Your task to perform on an android device: Go to internet settings Image 0: 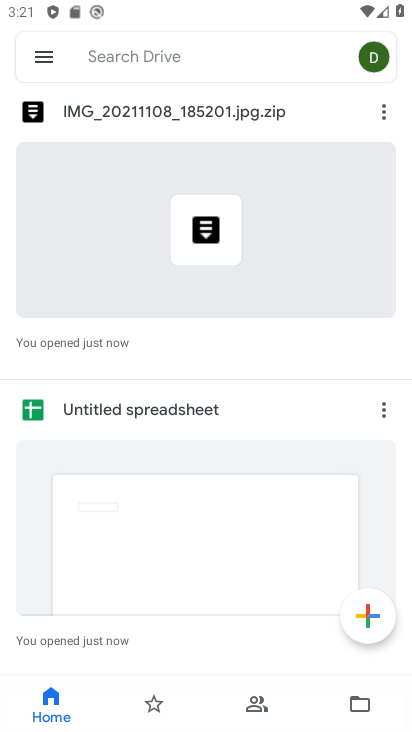
Step 0: press home button
Your task to perform on an android device: Go to internet settings Image 1: 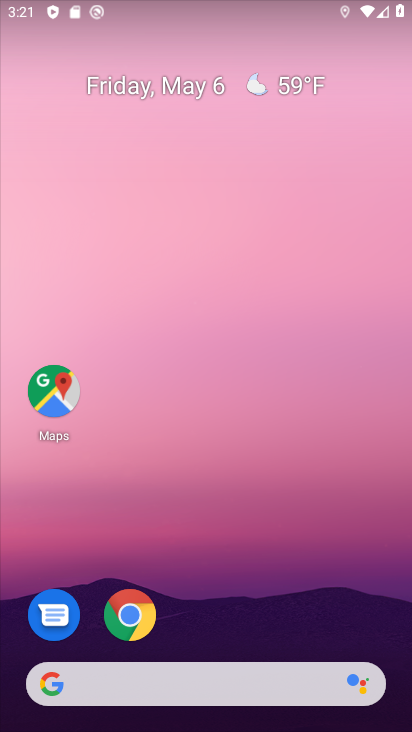
Step 1: drag from (288, 638) to (312, 10)
Your task to perform on an android device: Go to internet settings Image 2: 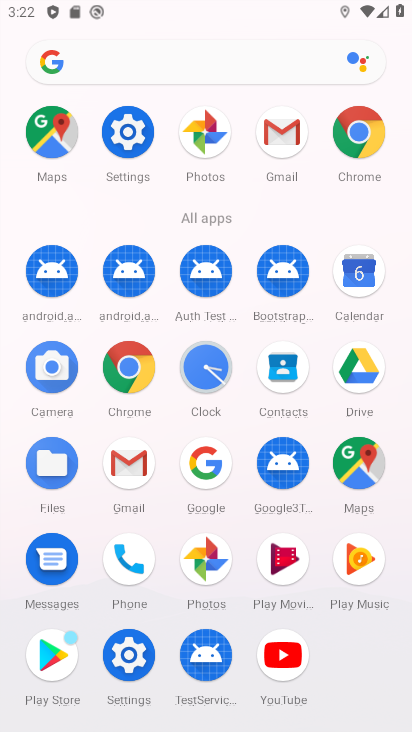
Step 2: click (130, 136)
Your task to perform on an android device: Go to internet settings Image 3: 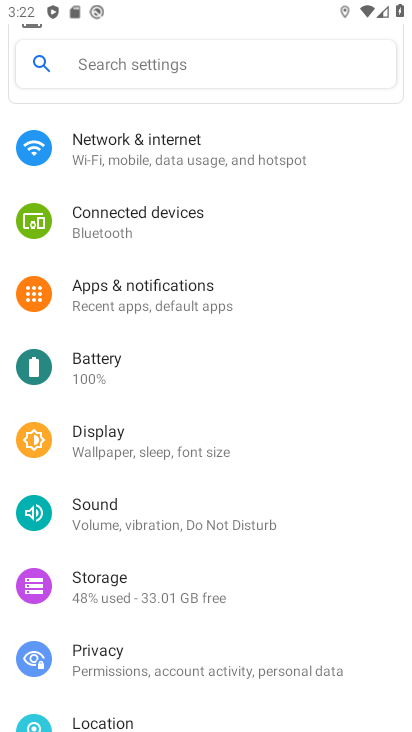
Step 3: click (130, 147)
Your task to perform on an android device: Go to internet settings Image 4: 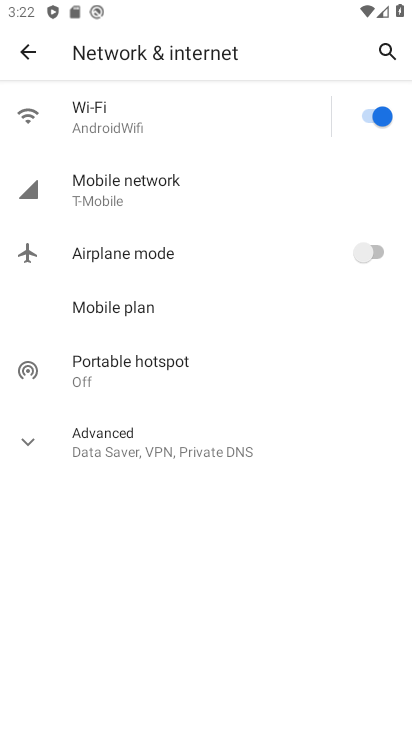
Step 4: click (31, 448)
Your task to perform on an android device: Go to internet settings Image 5: 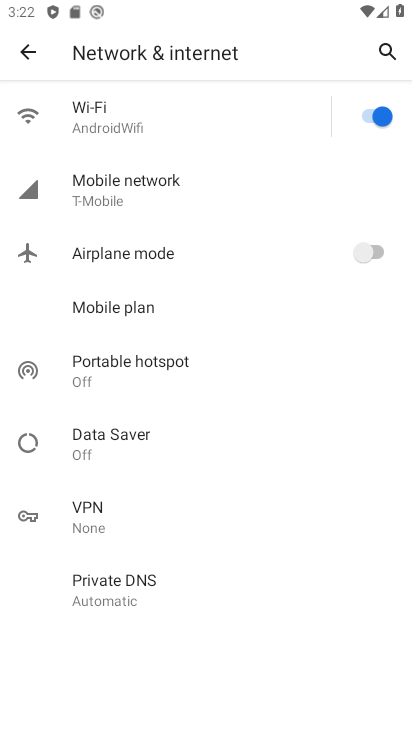
Step 5: task complete